Your task to perform on an android device: Open internet settings Image 0: 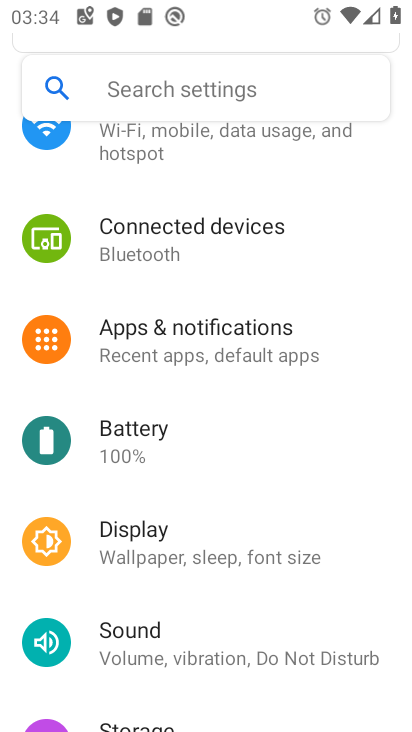
Step 0: press home button
Your task to perform on an android device: Open internet settings Image 1: 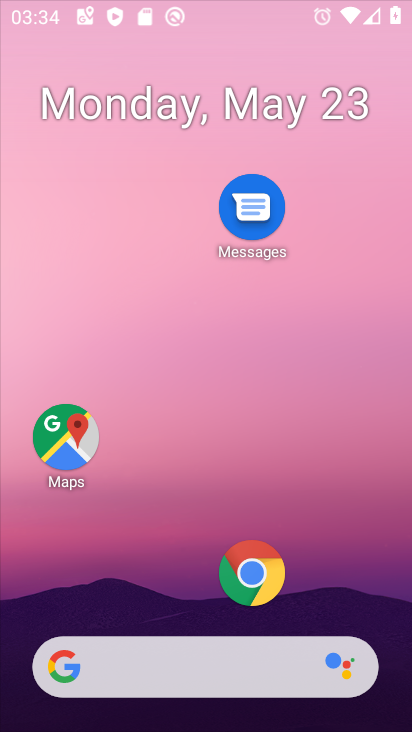
Step 1: drag from (219, 650) to (240, 113)
Your task to perform on an android device: Open internet settings Image 2: 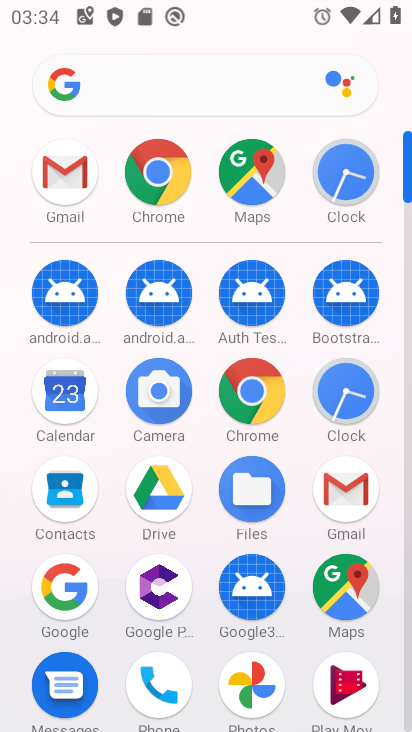
Step 2: drag from (209, 635) to (198, 205)
Your task to perform on an android device: Open internet settings Image 3: 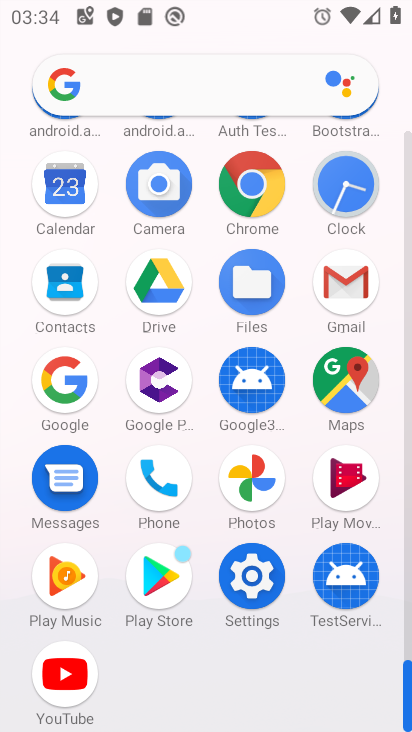
Step 3: click (259, 580)
Your task to perform on an android device: Open internet settings Image 4: 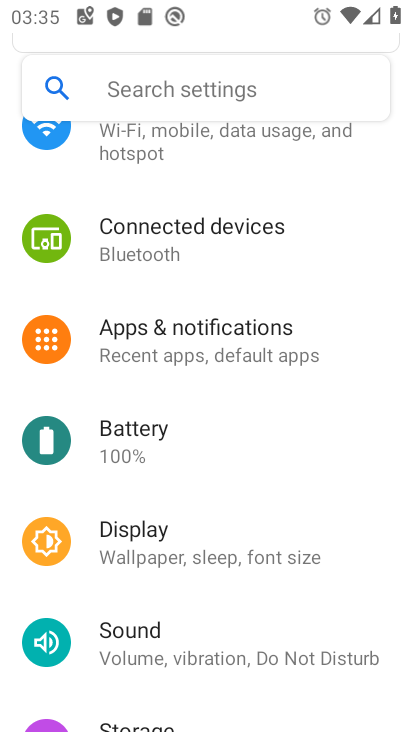
Step 4: drag from (291, 261) to (283, 730)
Your task to perform on an android device: Open internet settings Image 5: 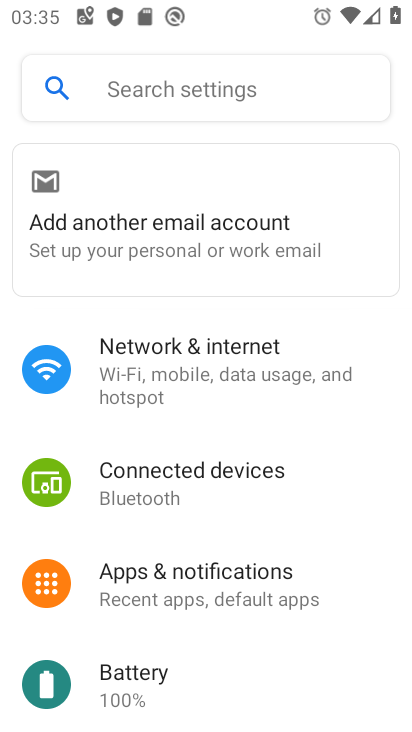
Step 5: click (227, 350)
Your task to perform on an android device: Open internet settings Image 6: 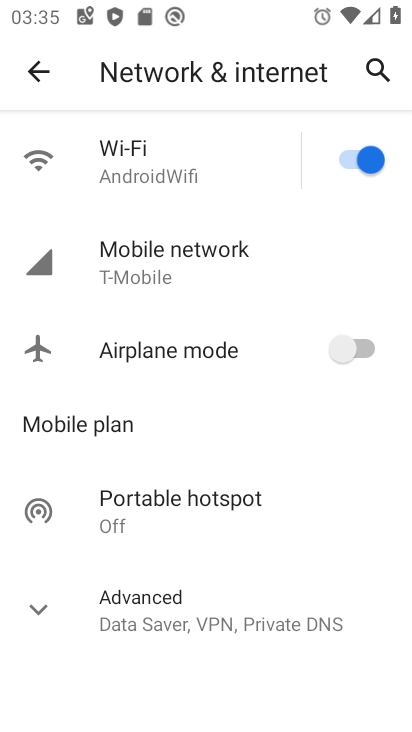
Step 6: task complete